Your task to perform on an android device: Open privacy settings Image 0: 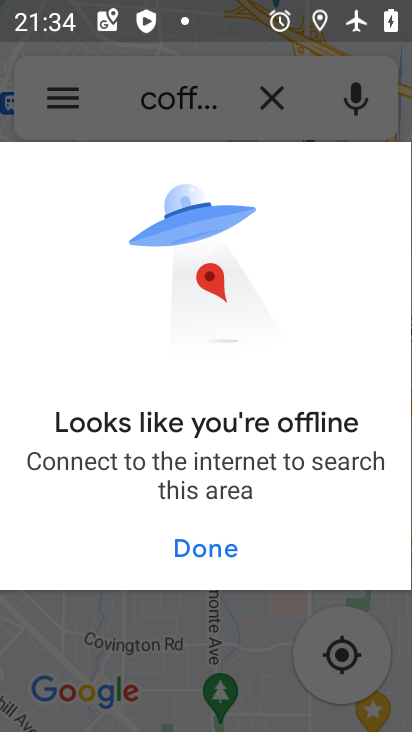
Step 0: press home button
Your task to perform on an android device: Open privacy settings Image 1: 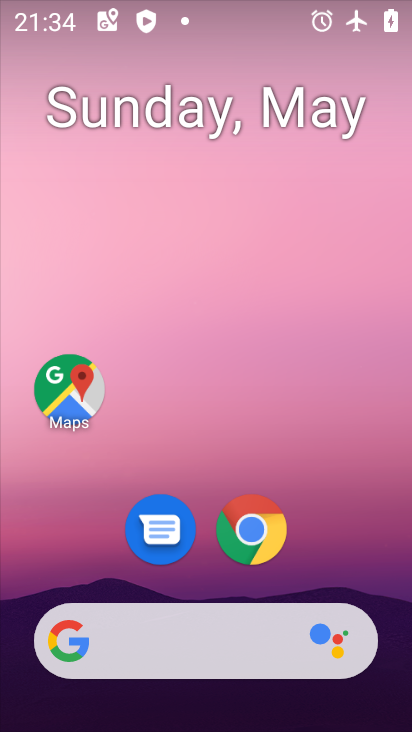
Step 1: drag from (345, 585) to (254, 15)
Your task to perform on an android device: Open privacy settings Image 2: 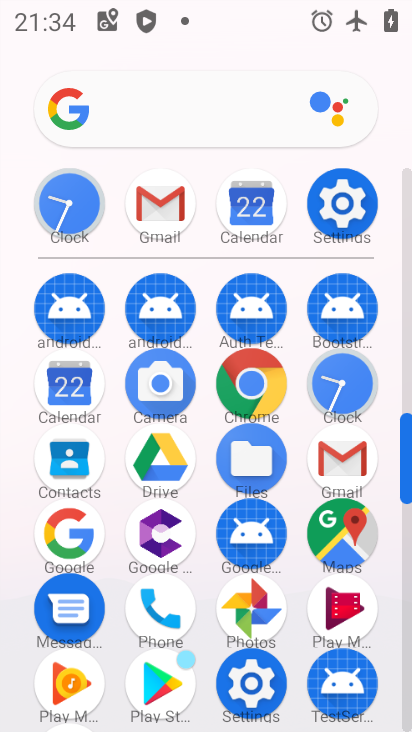
Step 2: click (351, 196)
Your task to perform on an android device: Open privacy settings Image 3: 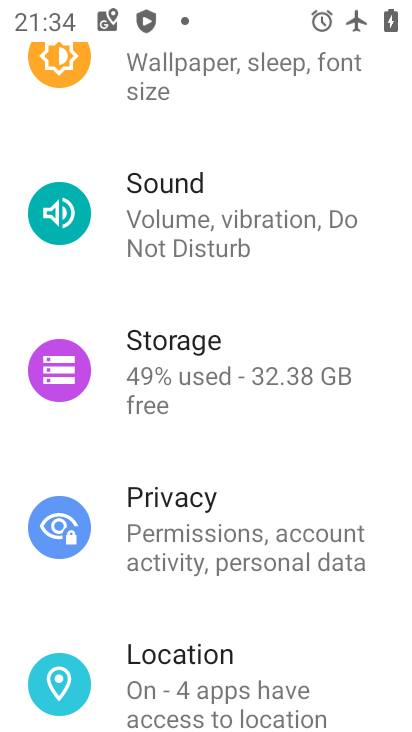
Step 3: click (197, 548)
Your task to perform on an android device: Open privacy settings Image 4: 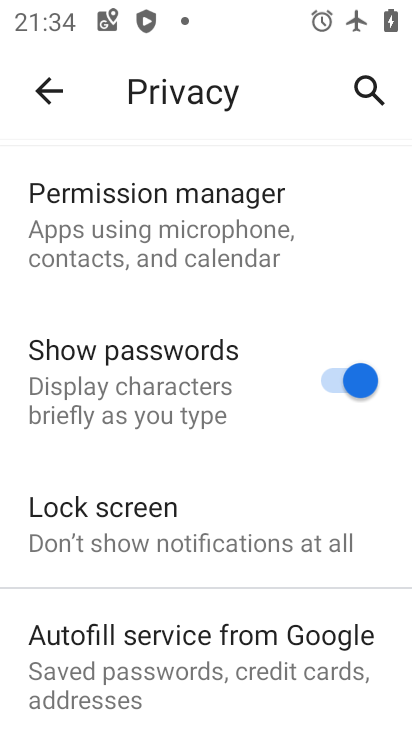
Step 4: task complete